Your task to perform on an android device: Search for the best selling books Image 0: 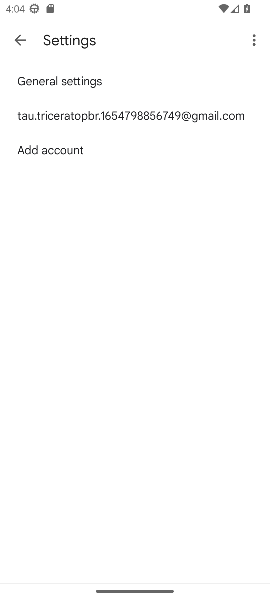
Step 0: press home button
Your task to perform on an android device: Search for the best selling books Image 1: 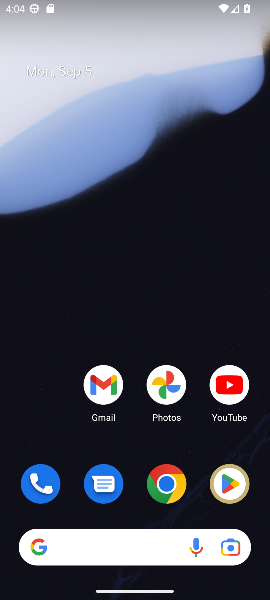
Step 1: click (171, 488)
Your task to perform on an android device: Search for the best selling books Image 2: 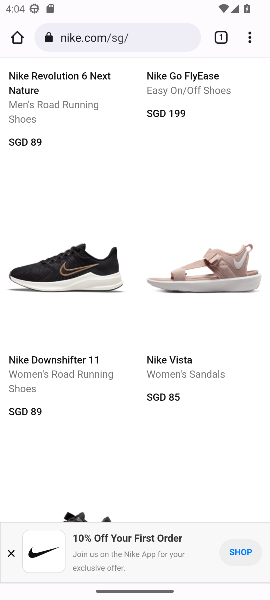
Step 2: click (124, 35)
Your task to perform on an android device: Search for the best selling books Image 3: 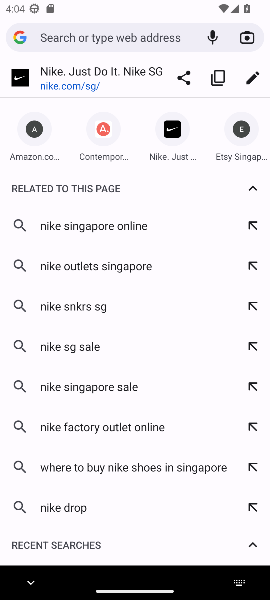
Step 3: type "the best selling books"
Your task to perform on an android device: Search for the best selling books Image 4: 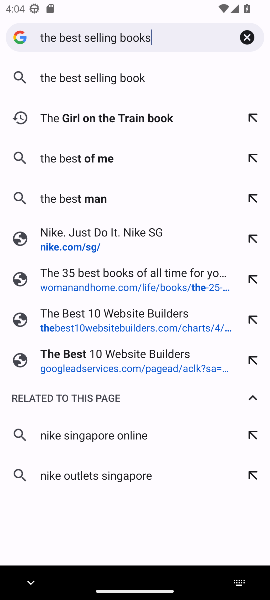
Step 4: press enter
Your task to perform on an android device: Search for the best selling books Image 5: 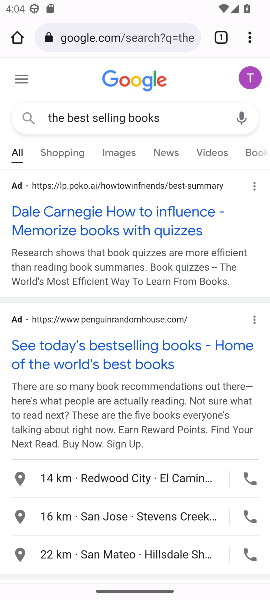
Step 5: click (124, 346)
Your task to perform on an android device: Search for the best selling books Image 6: 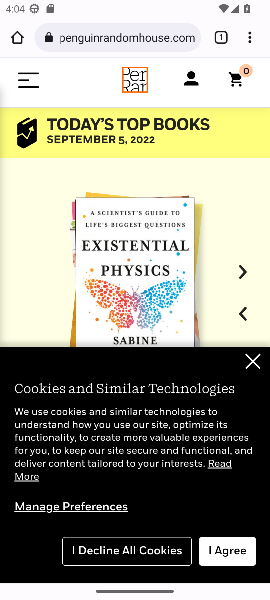
Step 6: click (211, 553)
Your task to perform on an android device: Search for the best selling books Image 7: 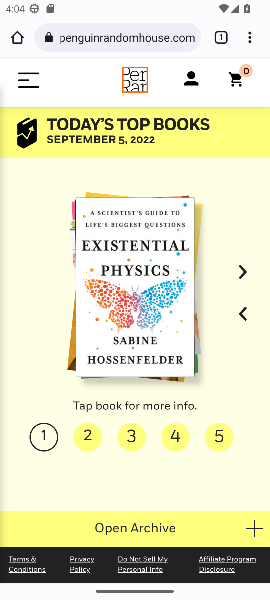
Step 7: drag from (113, 491) to (223, 89)
Your task to perform on an android device: Search for the best selling books Image 8: 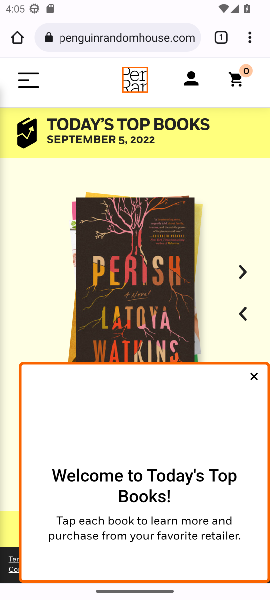
Step 8: click (91, 434)
Your task to perform on an android device: Search for the best selling books Image 9: 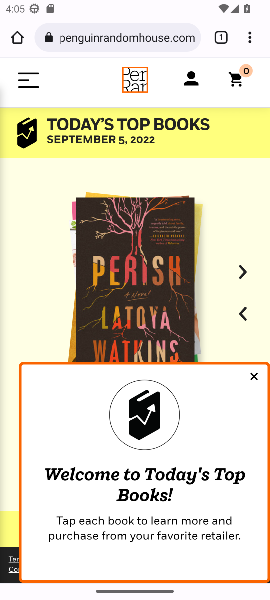
Step 9: click (256, 372)
Your task to perform on an android device: Search for the best selling books Image 10: 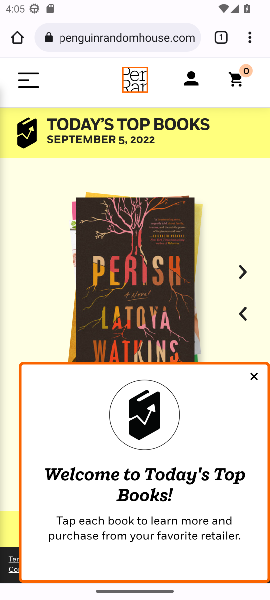
Step 10: click (253, 374)
Your task to perform on an android device: Search for the best selling books Image 11: 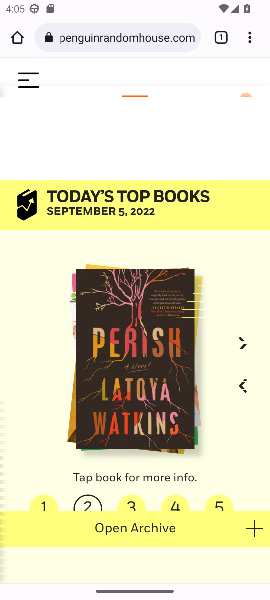
Step 11: drag from (116, 461) to (218, 158)
Your task to perform on an android device: Search for the best selling books Image 12: 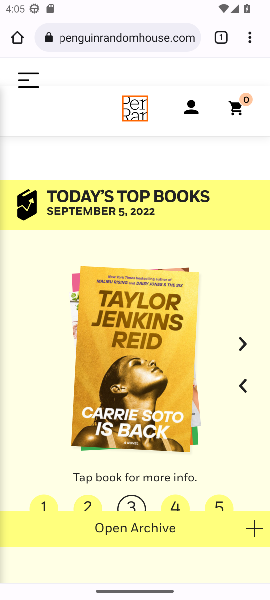
Step 12: drag from (122, 397) to (267, 415)
Your task to perform on an android device: Search for the best selling books Image 13: 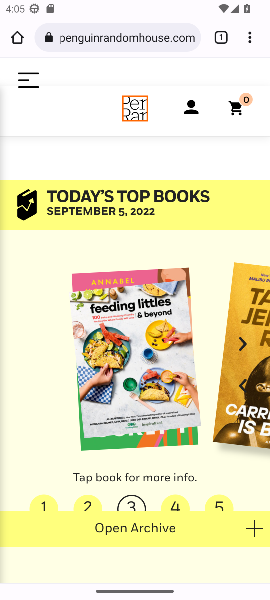
Step 13: click (245, 410)
Your task to perform on an android device: Search for the best selling books Image 14: 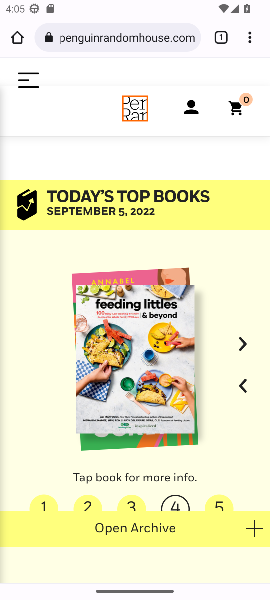
Step 14: click (245, 334)
Your task to perform on an android device: Search for the best selling books Image 15: 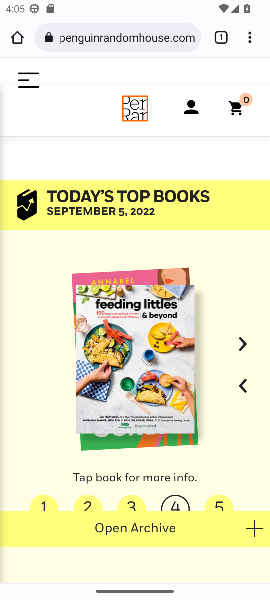
Step 15: click (245, 334)
Your task to perform on an android device: Search for the best selling books Image 16: 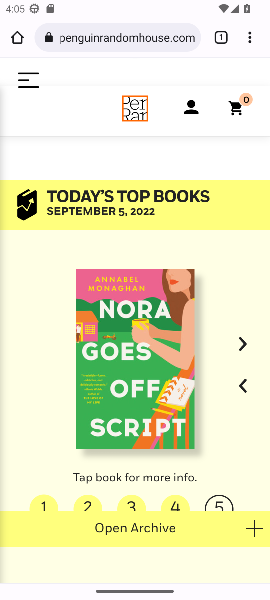
Step 16: click (244, 342)
Your task to perform on an android device: Search for the best selling books Image 17: 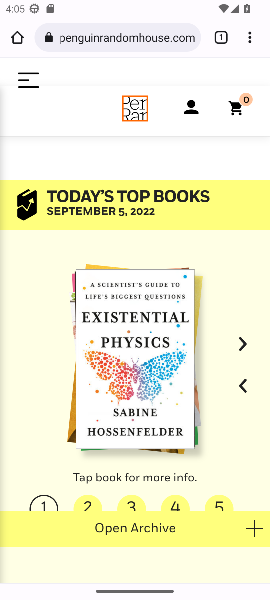
Step 17: task complete